Your task to perform on an android device: open app "Nova Launcher" (install if not already installed) and enter user name: "haggard@gmail.com" and password: "sadder" Image 0: 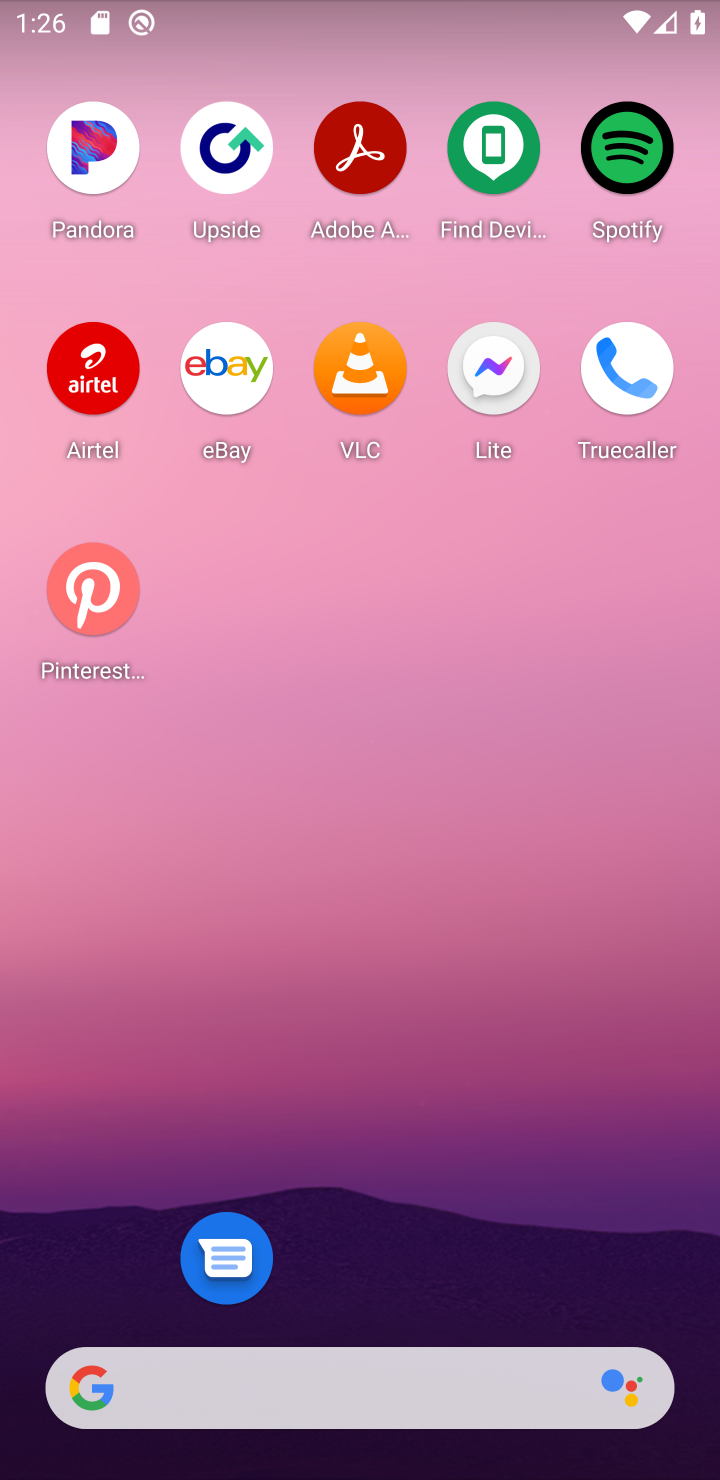
Step 0: drag from (520, 1309) to (534, 524)
Your task to perform on an android device: open app "Nova Launcher" (install if not already installed) and enter user name: "haggard@gmail.com" and password: "sadder" Image 1: 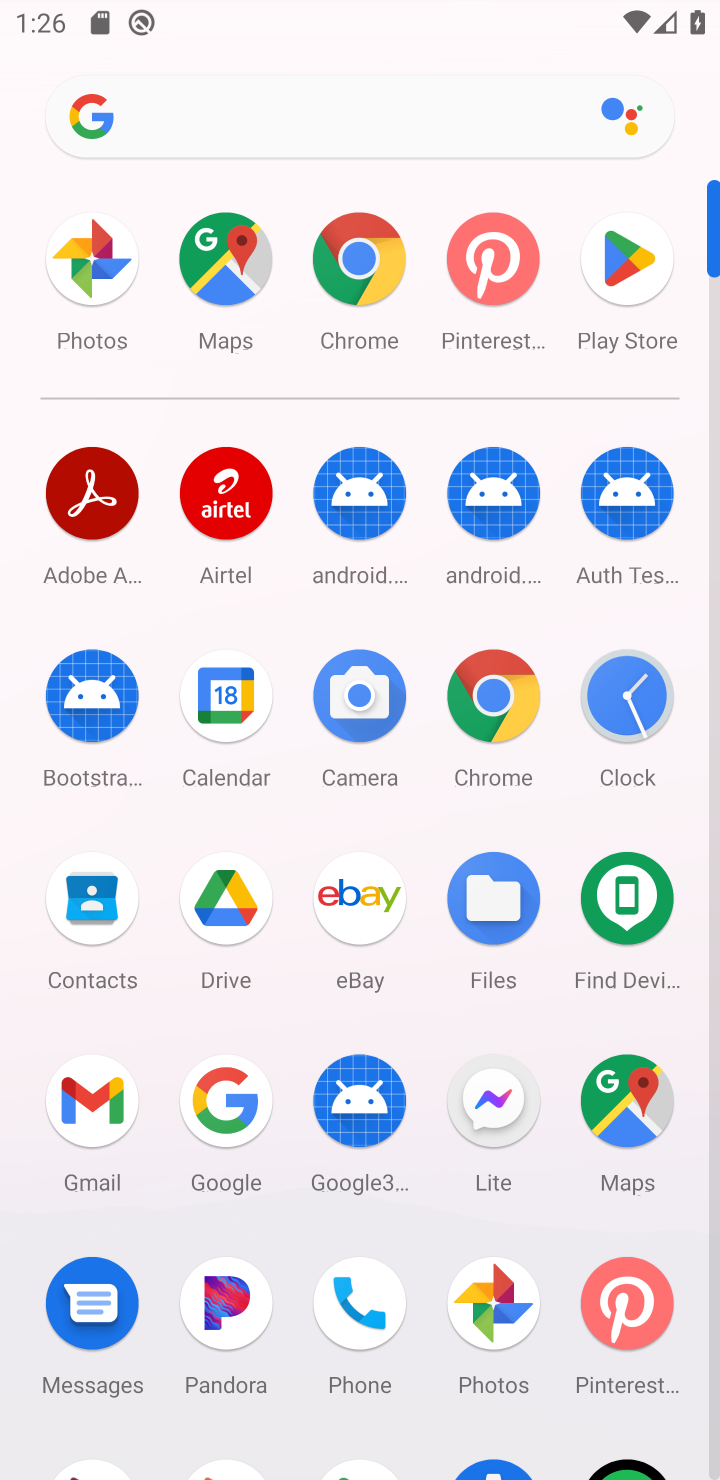
Step 1: click (613, 248)
Your task to perform on an android device: open app "Nova Launcher" (install if not already installed) and enter user name: "haggard@gmail.com" and password: "sadder" Image 2: 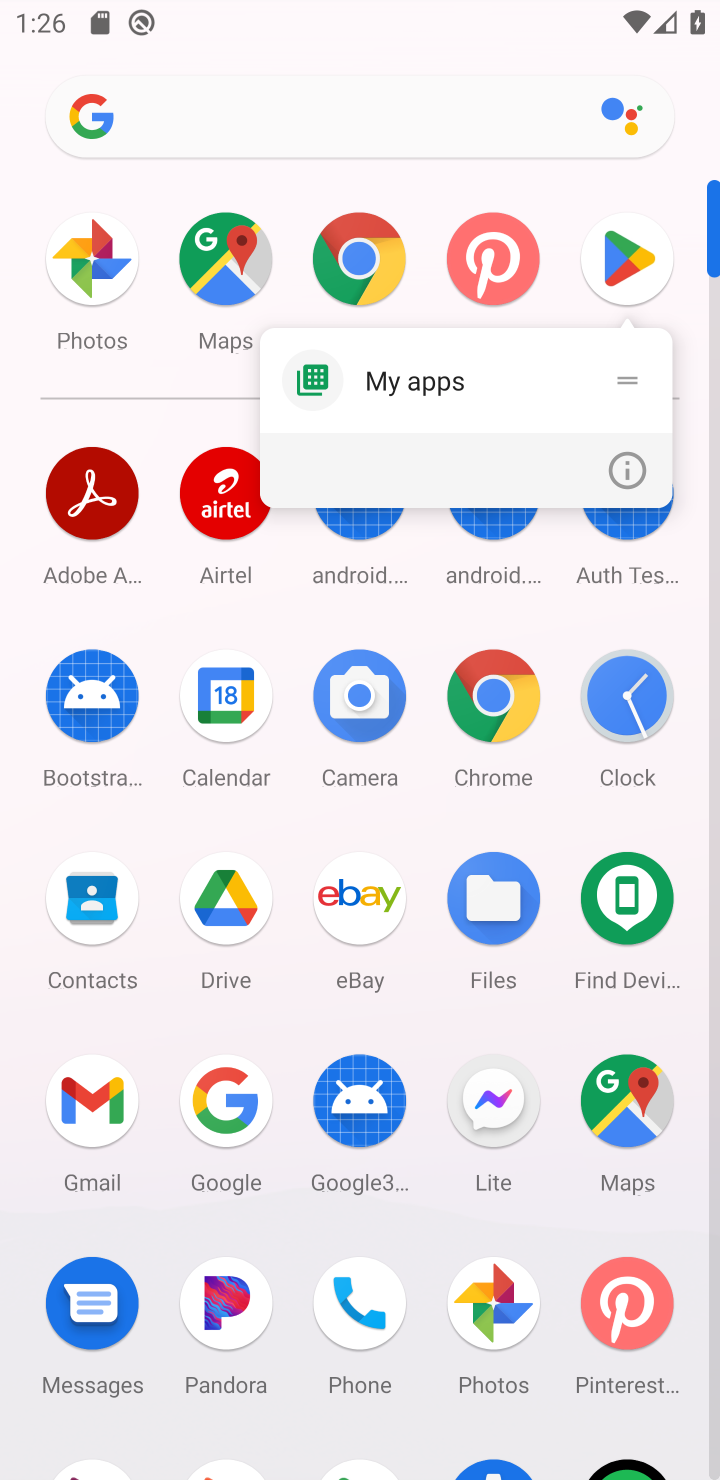
Step 2: click (653, 247)
Your task to perform on an android device: open app "Nova Launcher" (install if not already installed) and enter user name: "haggard@gmail.com" and password: "sadder" Image 3: 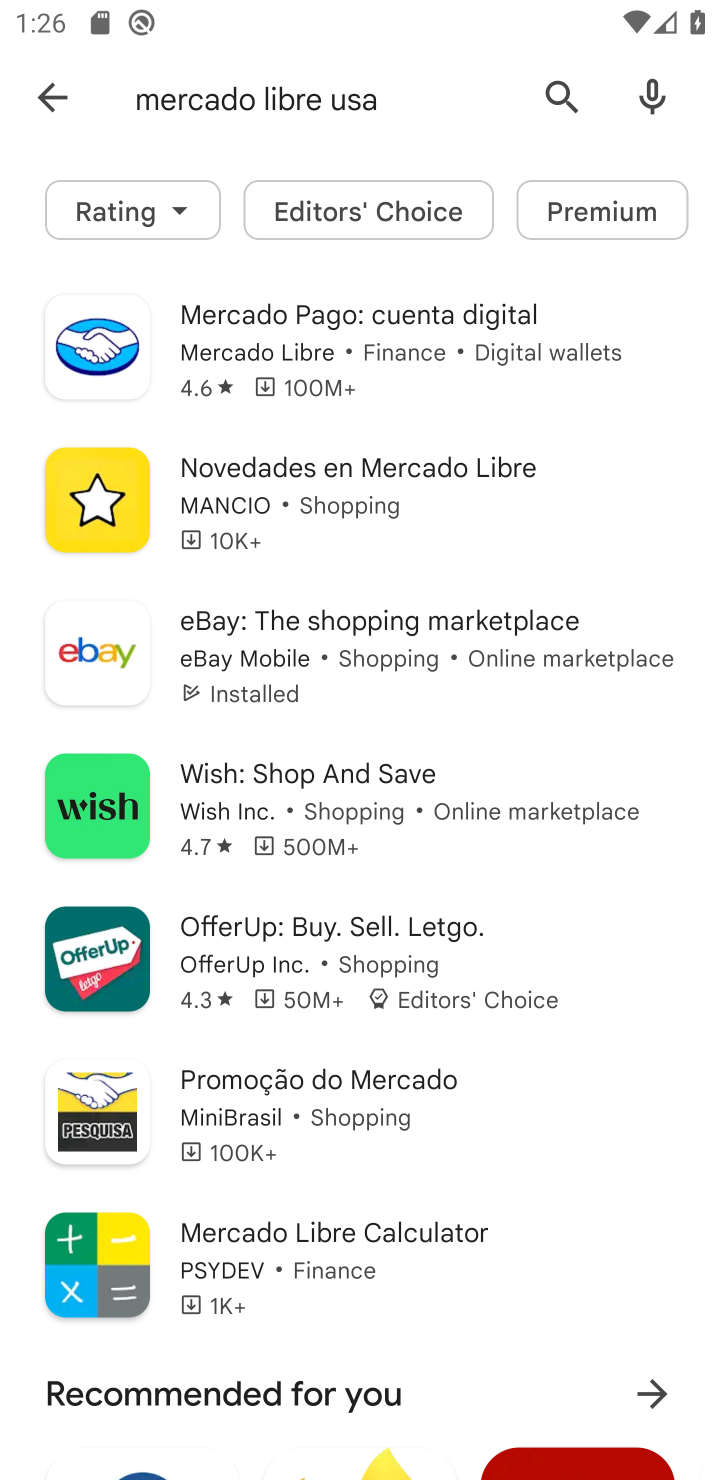
Step 3: click (86, 94)
Your task to perform on an android device: open app "Nova Launcher" (install if not already installed) and enter user name: "haggard@gmail.com" and password: "sadder" Image 4: 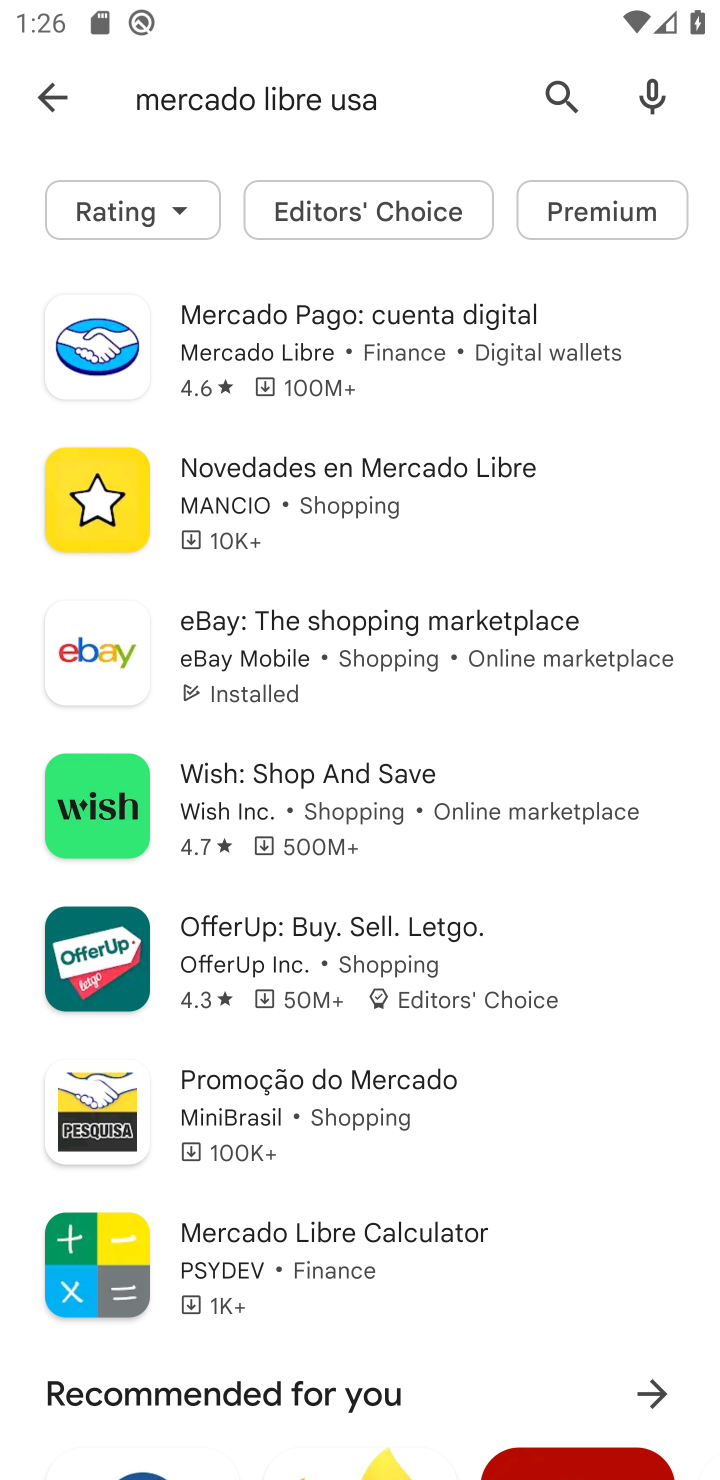
Step 4: click (563, 87)
Your task to perform on an android device: open app "Nova Launcher" (install if not already installed) and enter user name: "haggard@gmail.com" and password: "sadder" Image 5: 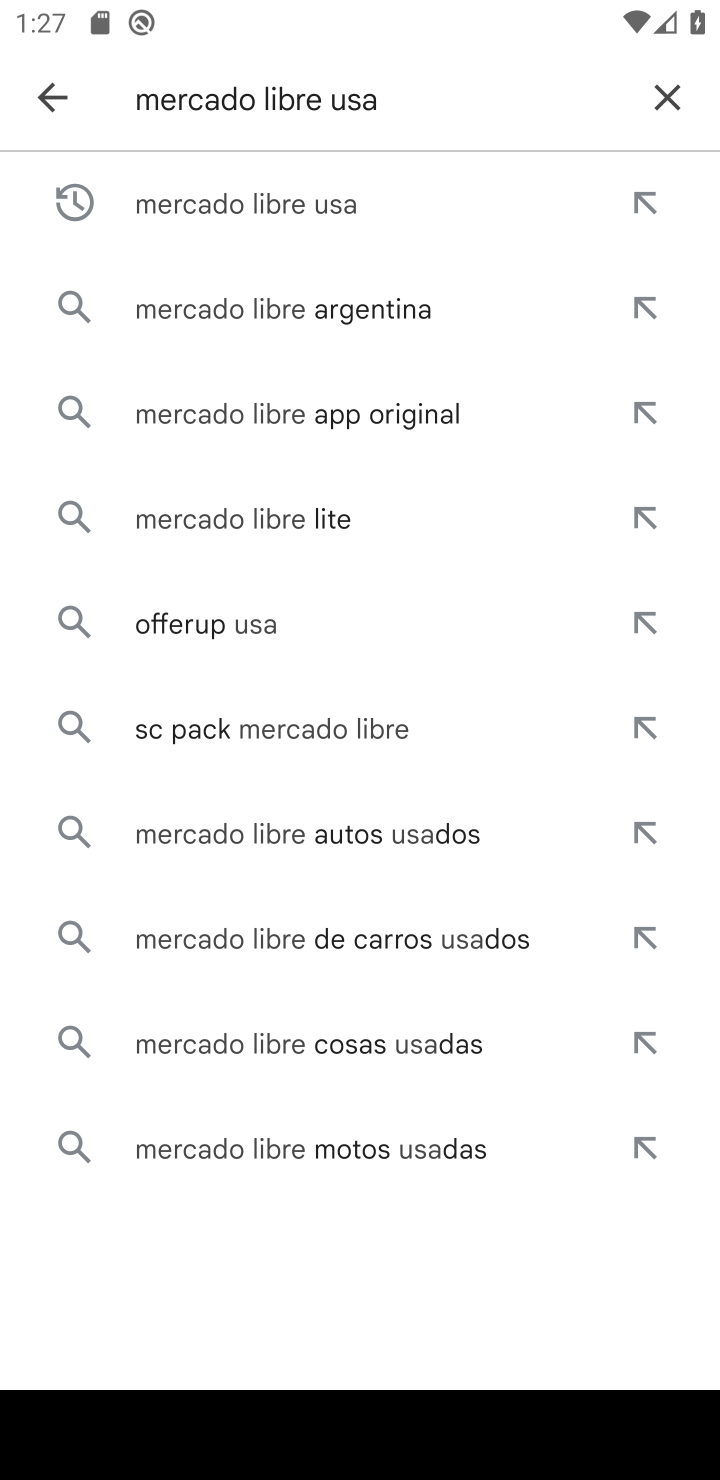
Step 5: click (686, 77)
Your task to perform on an android device: open app "Nova Launcher" (install if not already installed) and enter user name: "haggard@gmail.com" and password: "sadder" Image 6: 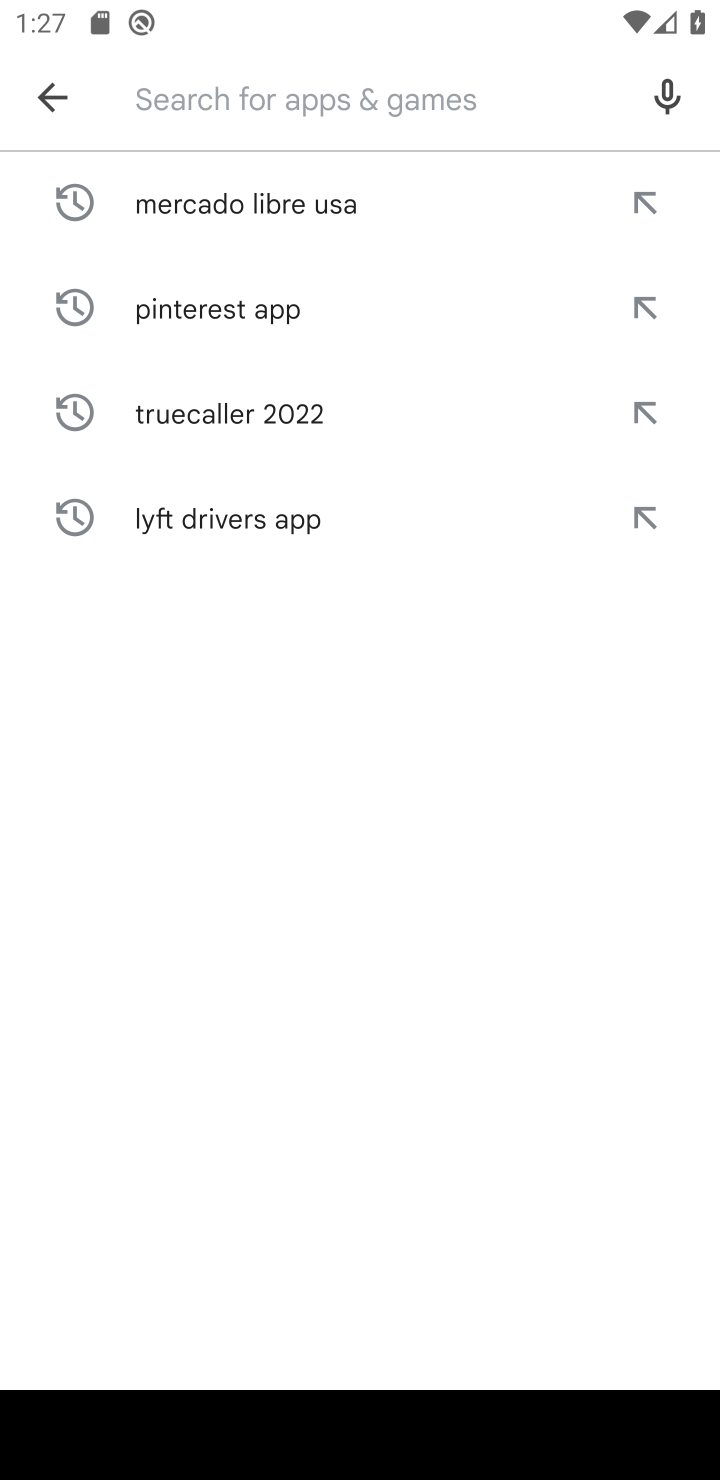
Step 6: click (311, 115)
Your task to perform on an android device: open app "Nova Launcher" (install if not already installed) and enter user name: "haggard@gmail.com" and password: "sadder" Image 7: 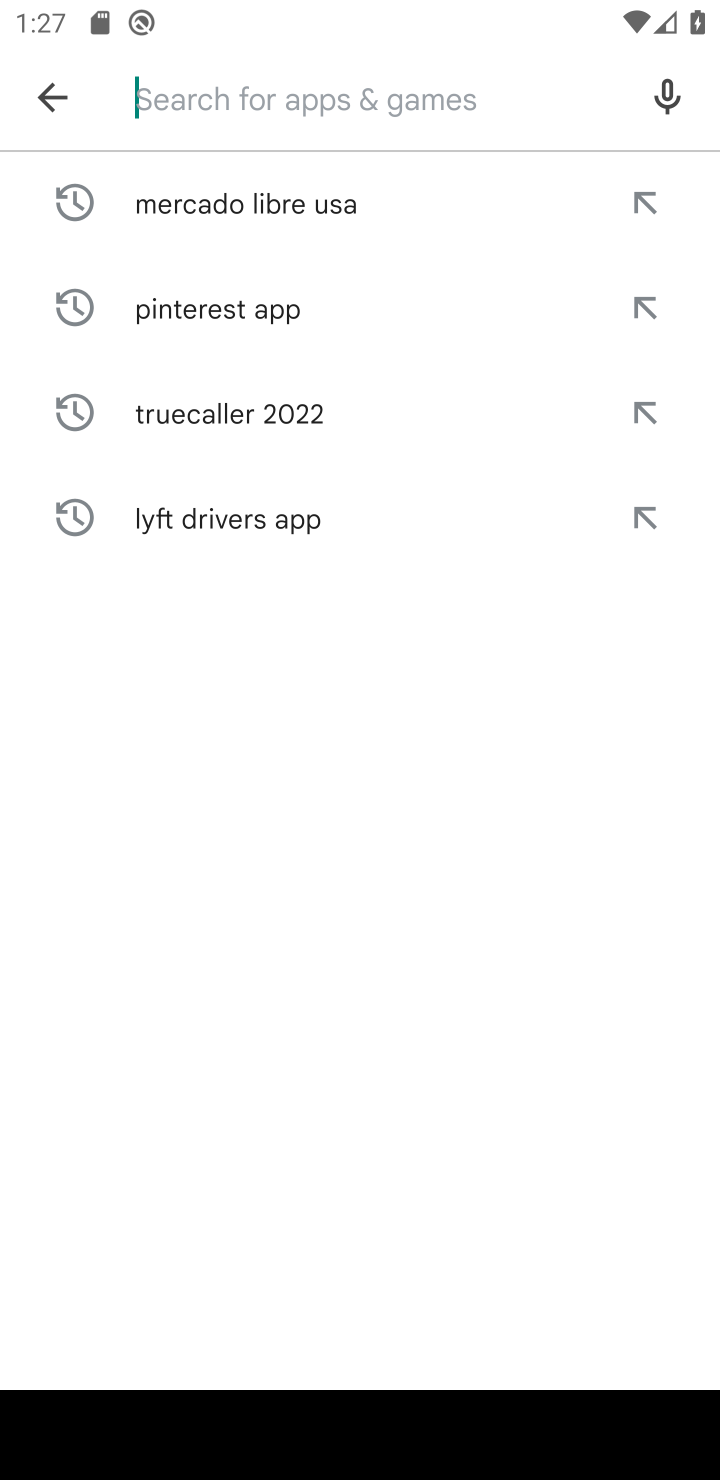
Step 7: type "Nova Launcher "
Your task to perform on an android device: open app "Nova Launcher" (install if not already installed) and enter user name: "haggard@gmail.com" and password: "sadder" Image 8: 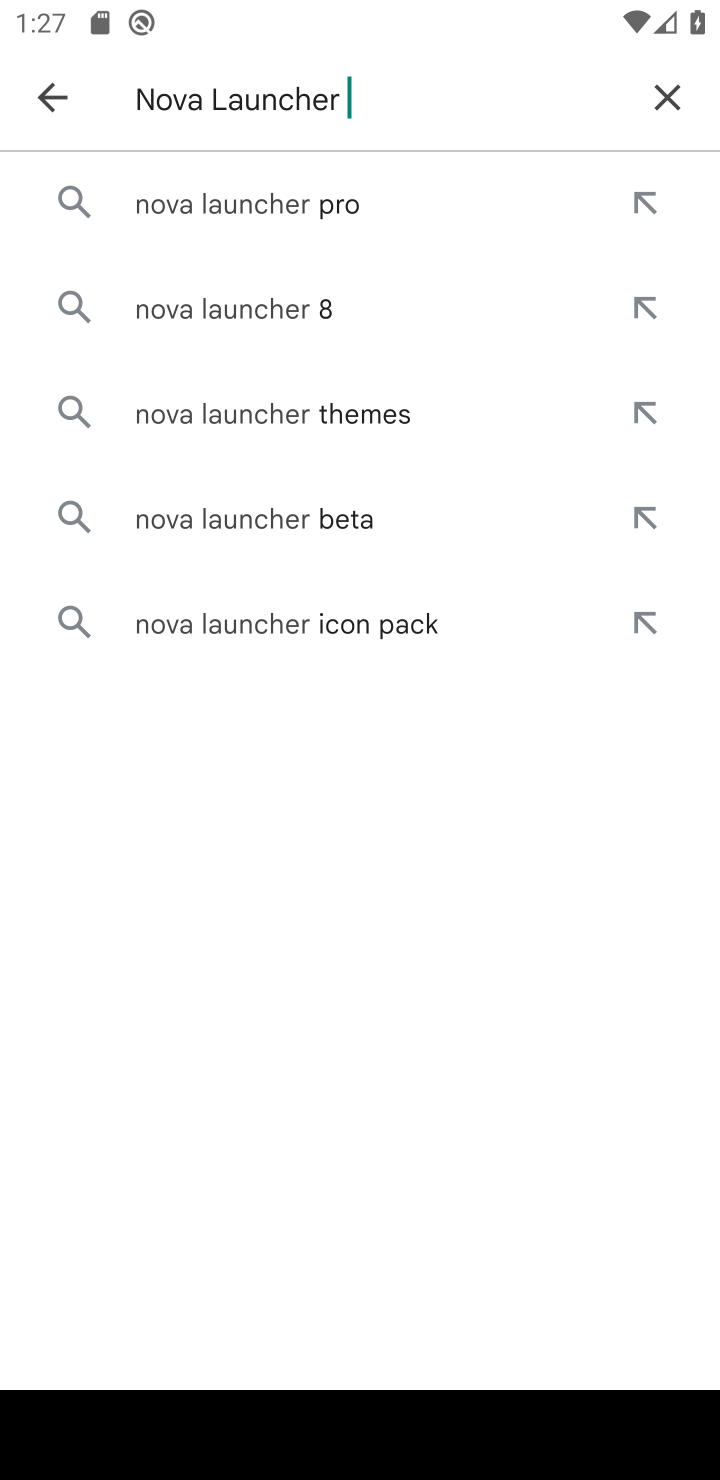
Step 8: click (280, 188)
Your task to perform on an android device: open app "Nova Launcher" (install if not already installed) and enter user name: "haggard@gmail.com" and password: "sadder" Image 9: 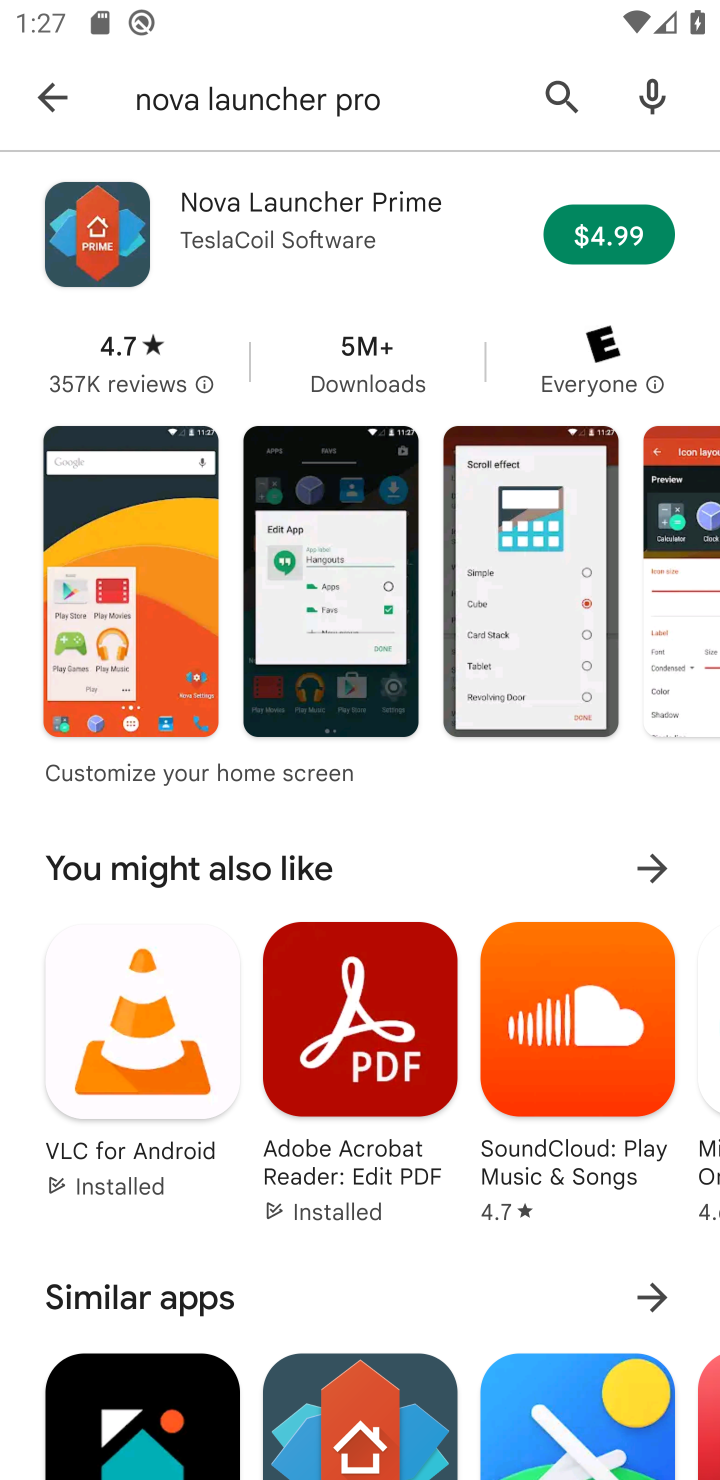
Step 9: task complete